Your task to perform on an android device: Open calendar and show me the first week of next month Image 0: 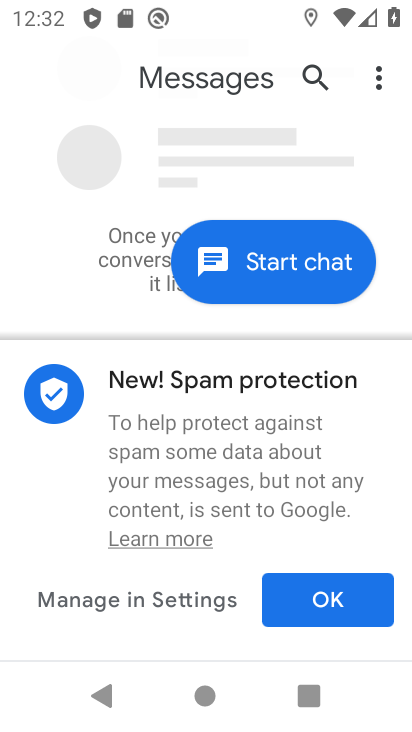
Step 0: press home button
Your task to perform on an android device: Open calendar and show me the first week of next month Image 1: 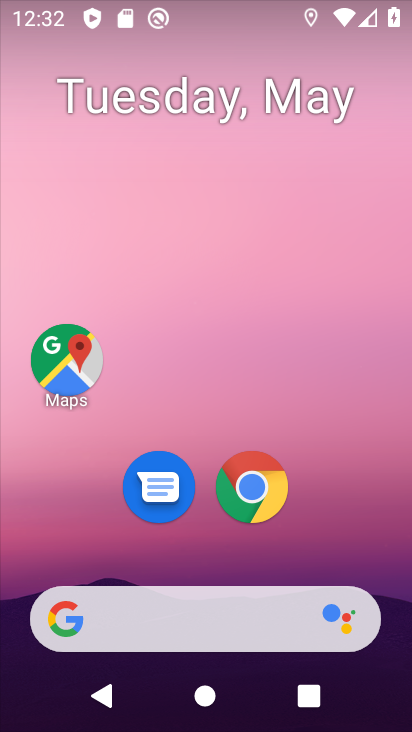
Step 1: click (187, 103)
Your task to perform on an android device: Open calendar and show me the first week of next month Image 2: 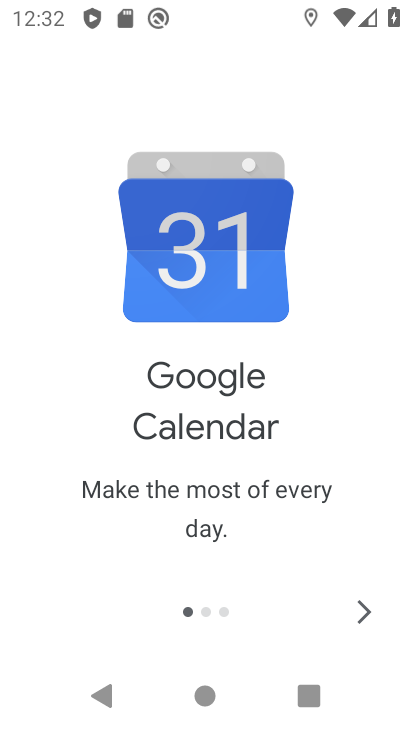
Step 2: click (370, 597)
Your task to perform on an android device: Open calendar and show me the first week of next month Image 3: 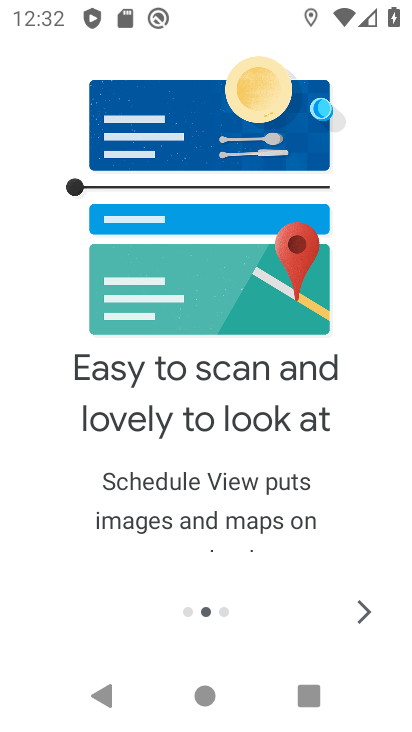
Step 3: click (370, 605)
Your task to perform on an android device: Open calendar and show me the first week of next month Image 4: 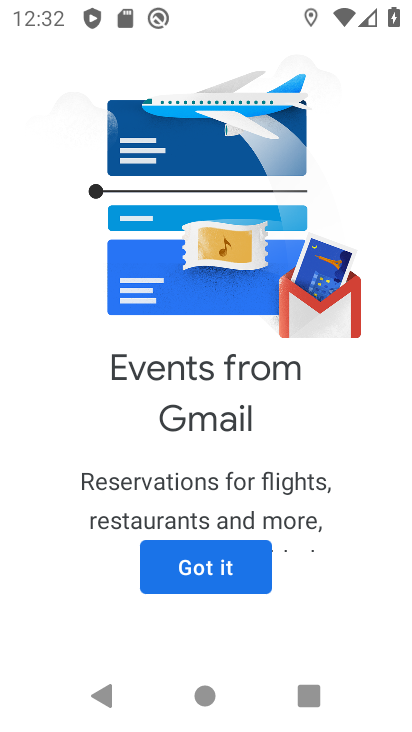
Step 4: click (370, 605)
Your task to perform on an android device: Open calendar and show me the first week of next month Image 5: 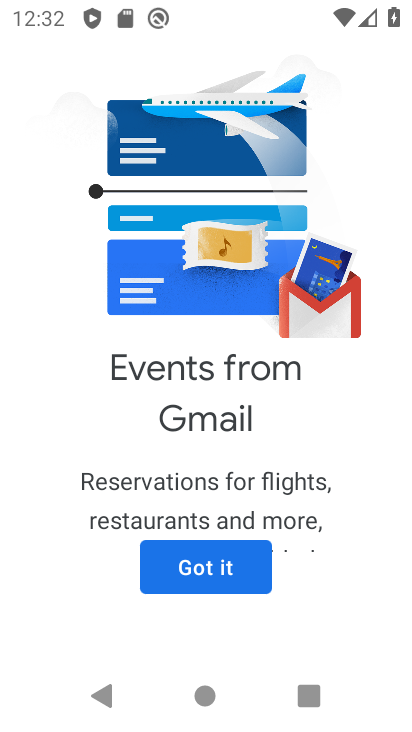
Step 5: click (263, 580)
Your task to perform on an android device: Open calendar and show me the first week of next month Image 6: 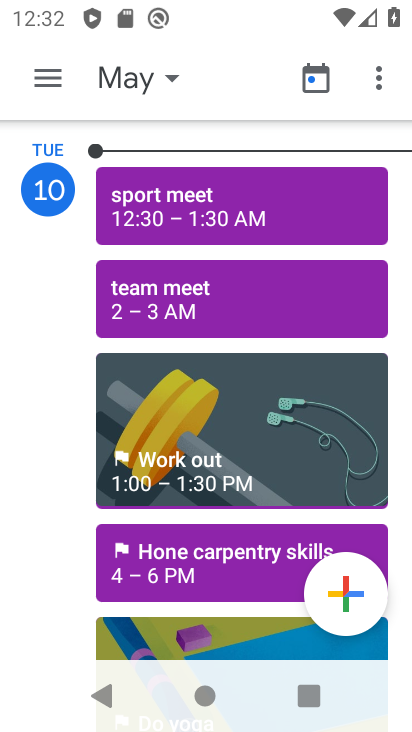
Step 6: click (49, 81)
Your task to perform on an android device: Open calendar and show me the first week of next month Image 7: 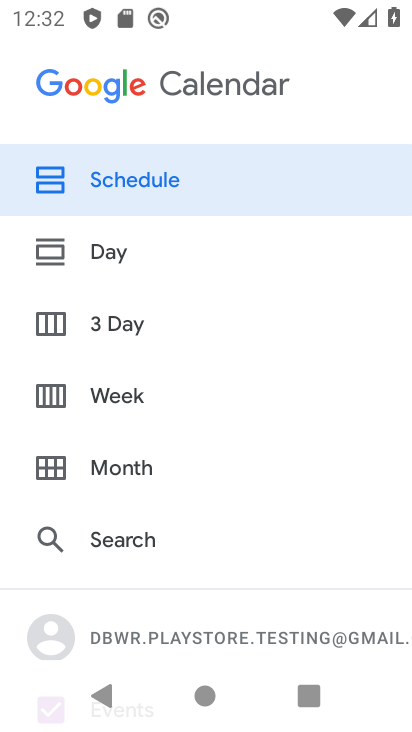
Step 7: click (131, 407)
Your task to perform on an android device: Open calendar and show me the first week of next month Image 8: 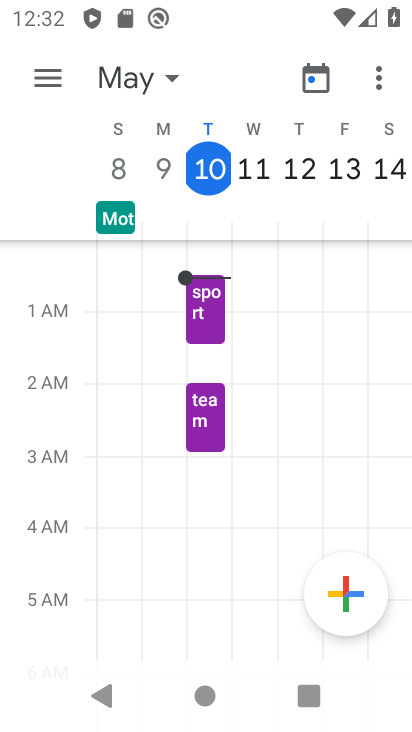
Step 8: click (163, 75)
Your task to perform on an android device: Open calendar and show me the first week of next month Image 9: 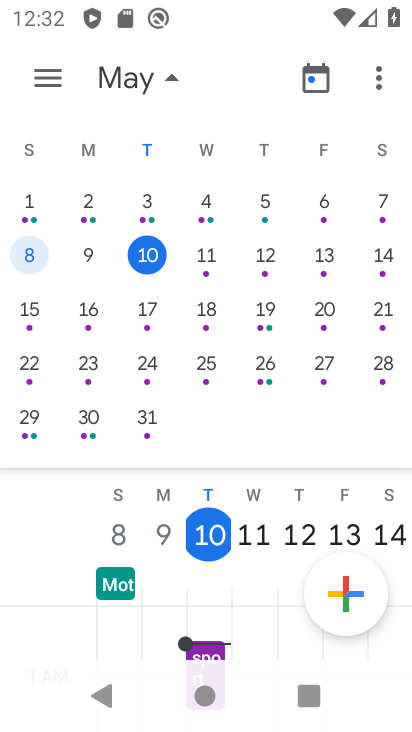
Step 9: task complete